Your task to perform on an android device: add a contact Image 0: 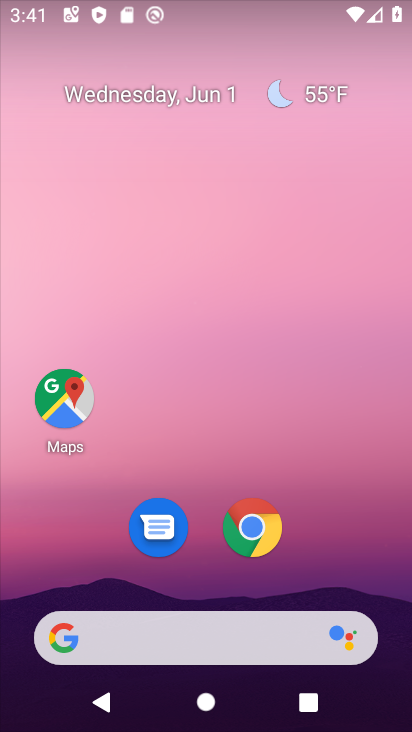
Step 0: drag from (358, 533) to (346, 4)
Your task to perform on an android device: add a contact Image 1: 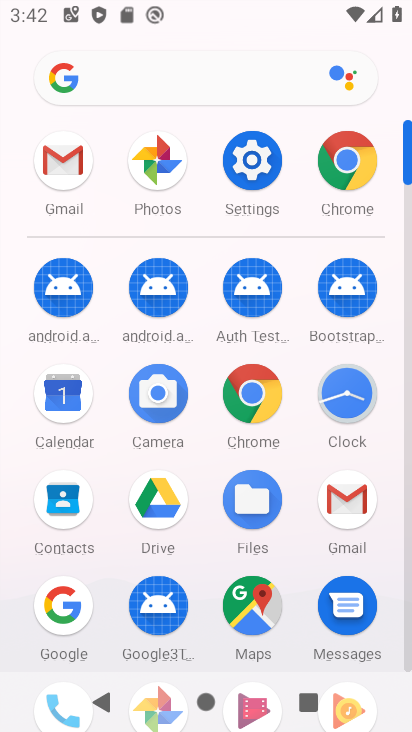
Step 1: click (56, 519)
Your task to perform on an android device: add a contact Image 2: 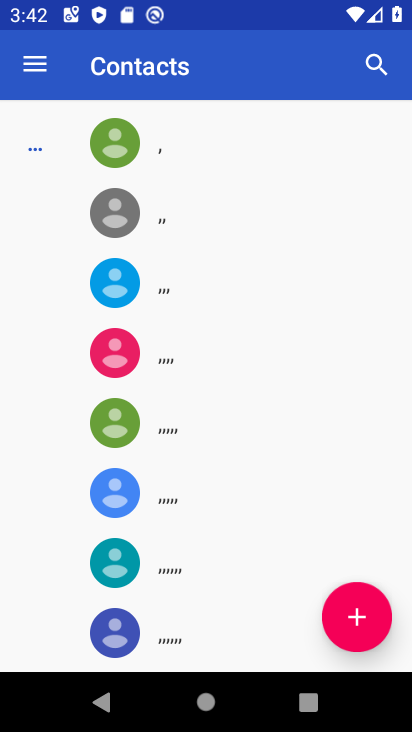
Step 2: click (362, 618)
Your task to perform on an android device: add a contact Image 3: 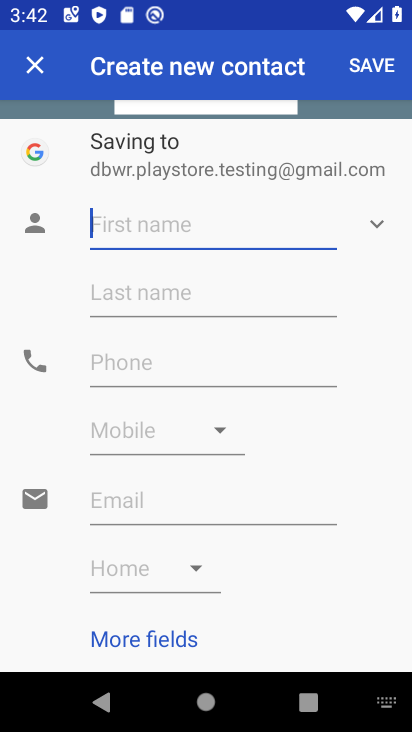
Step 3: type "hfrtw4"
Your task to perform on an android device: add a contact Image 4: 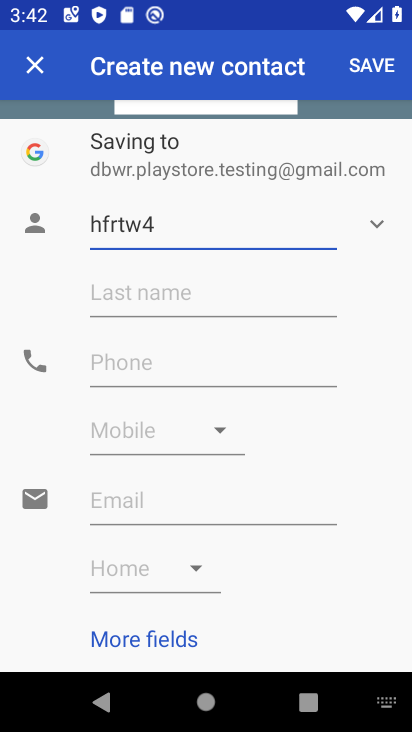
Step 4: click (259, 364)
Your task to perform on an android device: add a contact Image 5: 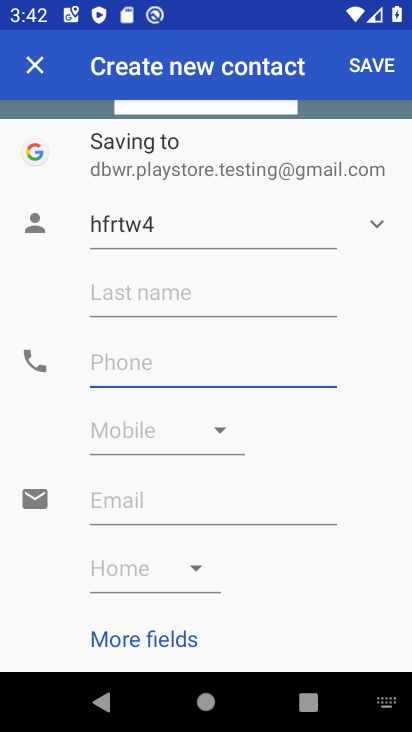
Step 5: click (259, 364)
Your task to perform on an android device: add a contact Image 6: 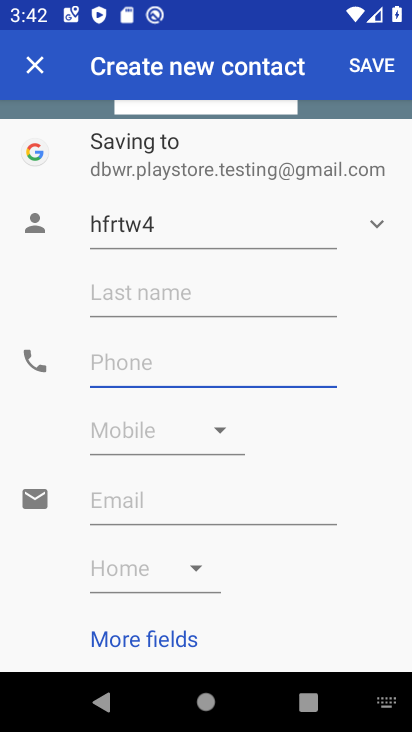
Step 6: type "700"
Your task to perform on an android device: add a contact Image 7: 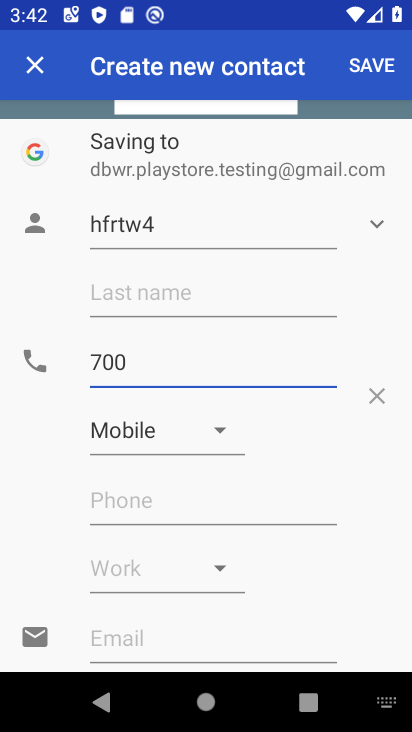
Step 7: click (370, 48)
Your task to perform on an android device: add a contact Image 8: 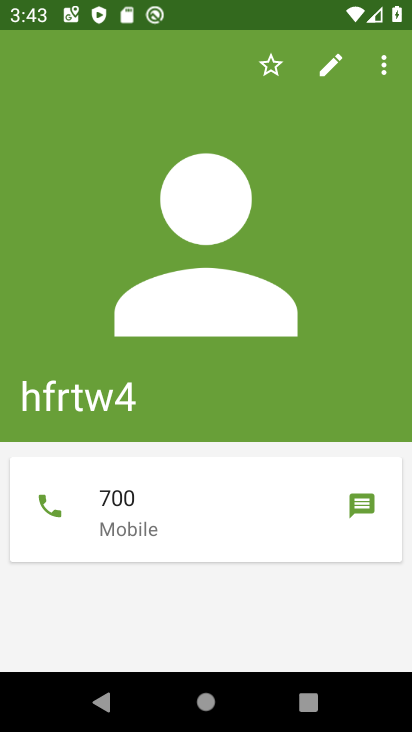
Step 8: task complete